Your task to perform on an android device: Open the calendar app, open the side menu, and click the "Day" option Image 0: 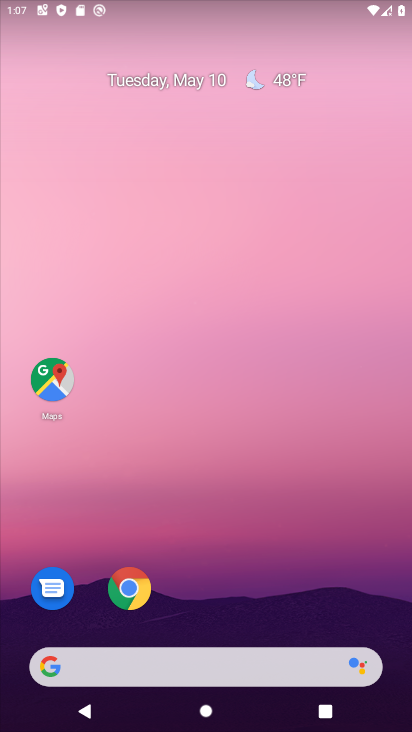
Step 0: drag from (188, 608) to (277, 98)
Your task to perform on an android device: Open the calendar app, open the side menu, and click the "Day" option Image 1: 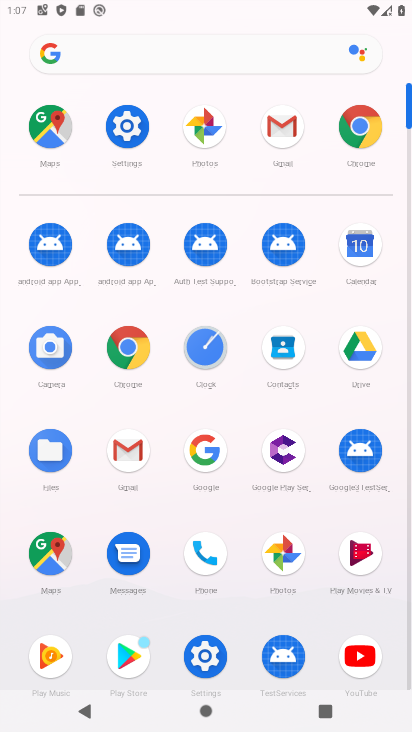
Step 1: click (357, 251)
Your task to perform on an android device: Open the calendar app, open the side menu, and click the "Day" option Image 2: 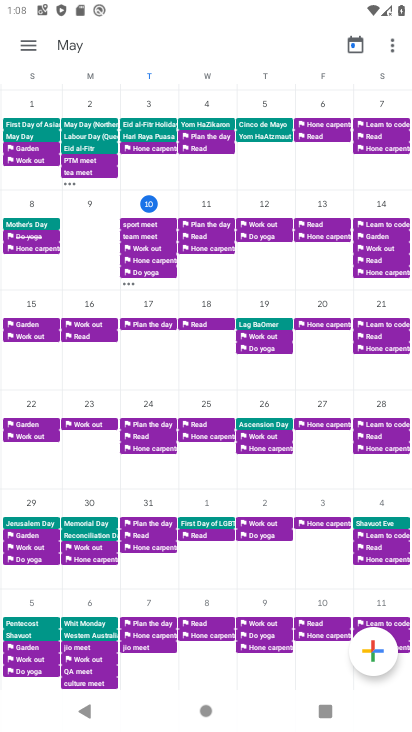
Step 2: click (15, 38)
Your task to perform on an android device: Open the calendar app, open the side menu, and click the "Day" option Image 3: 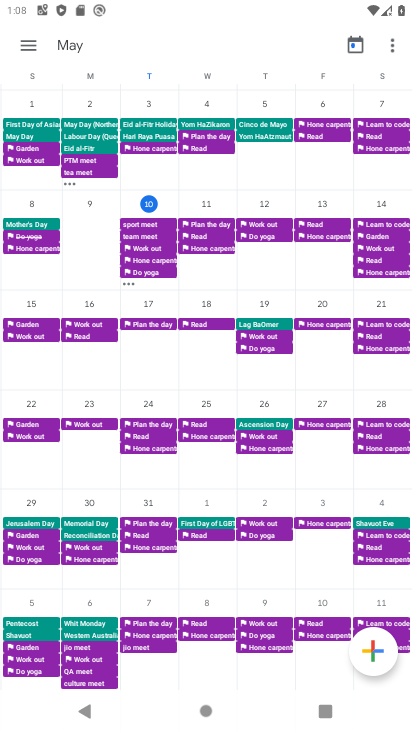
Step 3: click (26, 52)
Your task to perform on an android device: Open the calendar app, open the side menu, and click the "Day" option Image 4: 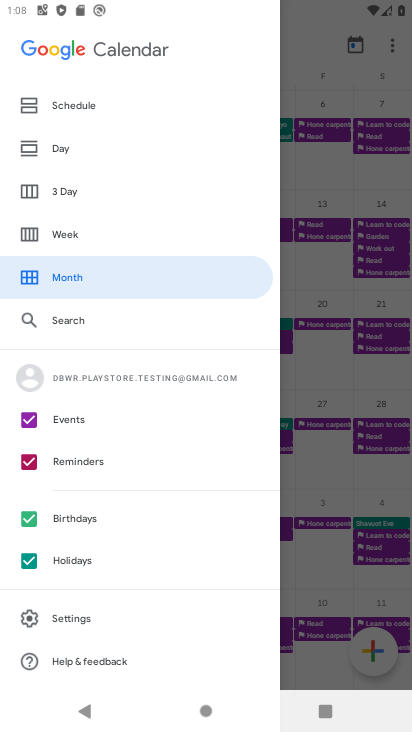
Step 4: click (81, 153)
Your task to perform on an android device: Open the calendar app, open the side menu, and click the "Day" option Image 5: 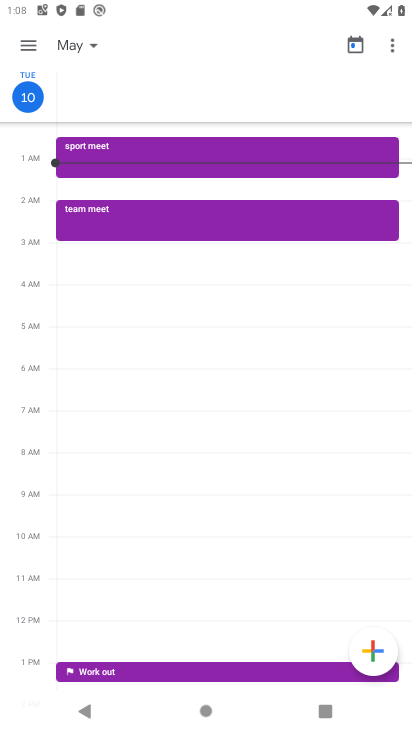
Step 5: task complete